Your task to perform on an android device: Check out the best rated books on Goodreads. Image 0: 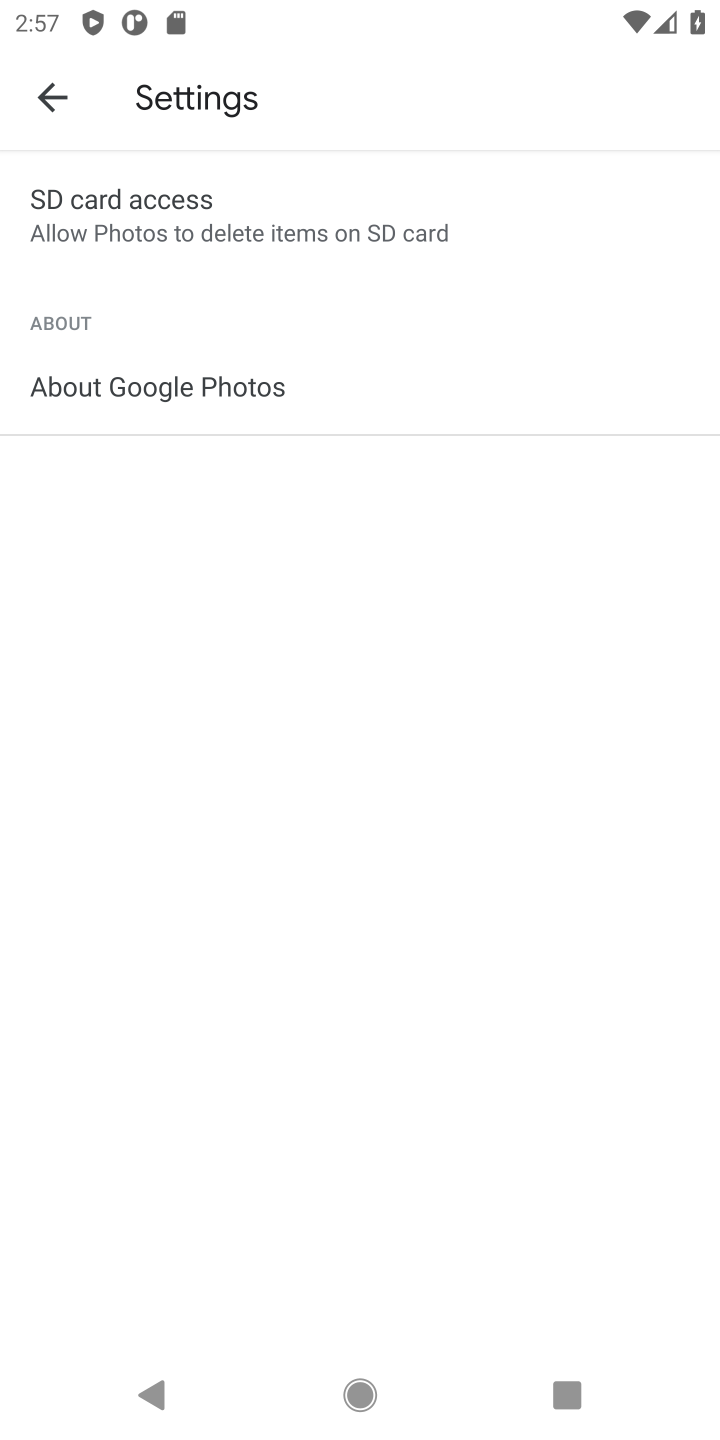
Step 0: press home button
Your task to perform on an android device: Check out the best rated books on Goodreads. Image 1: 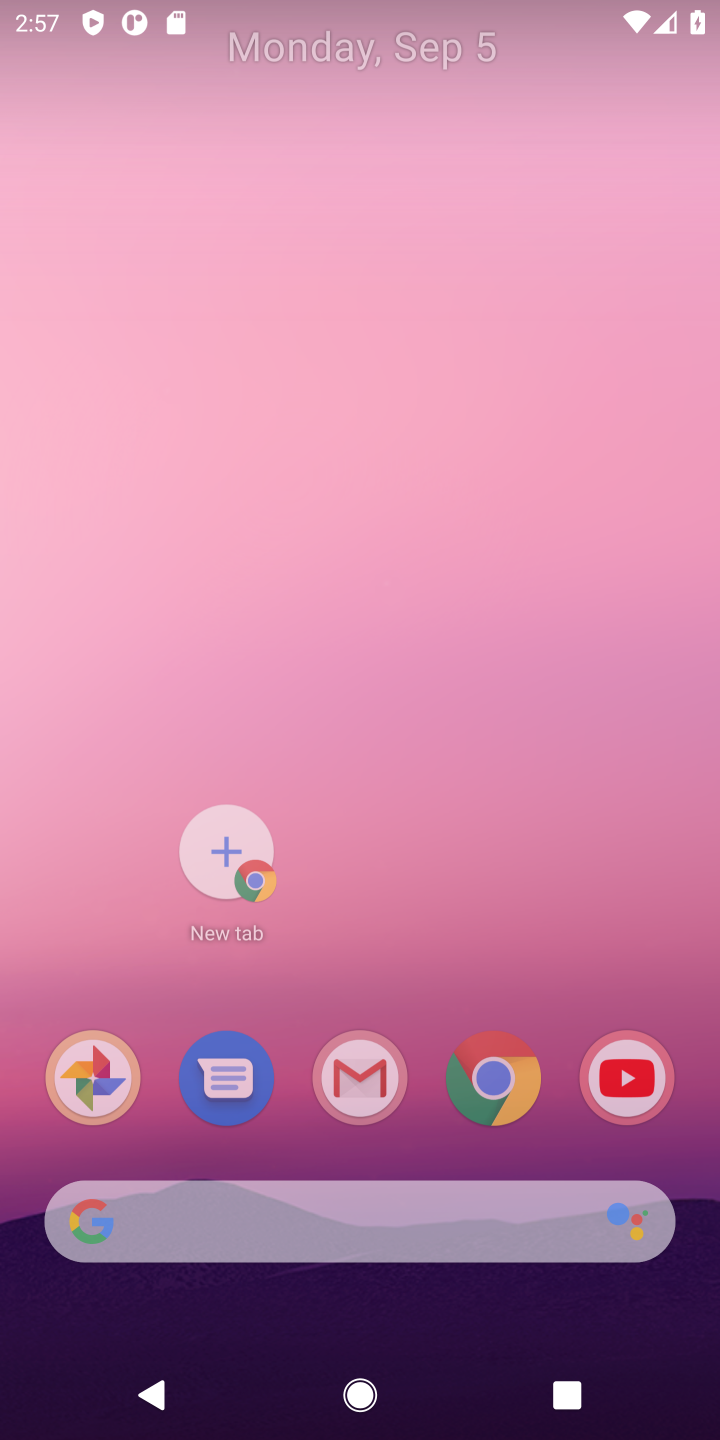
Step 1: press home button
Your task to perform on an android device: Check out the best rated books on Goodreads. Image 2: 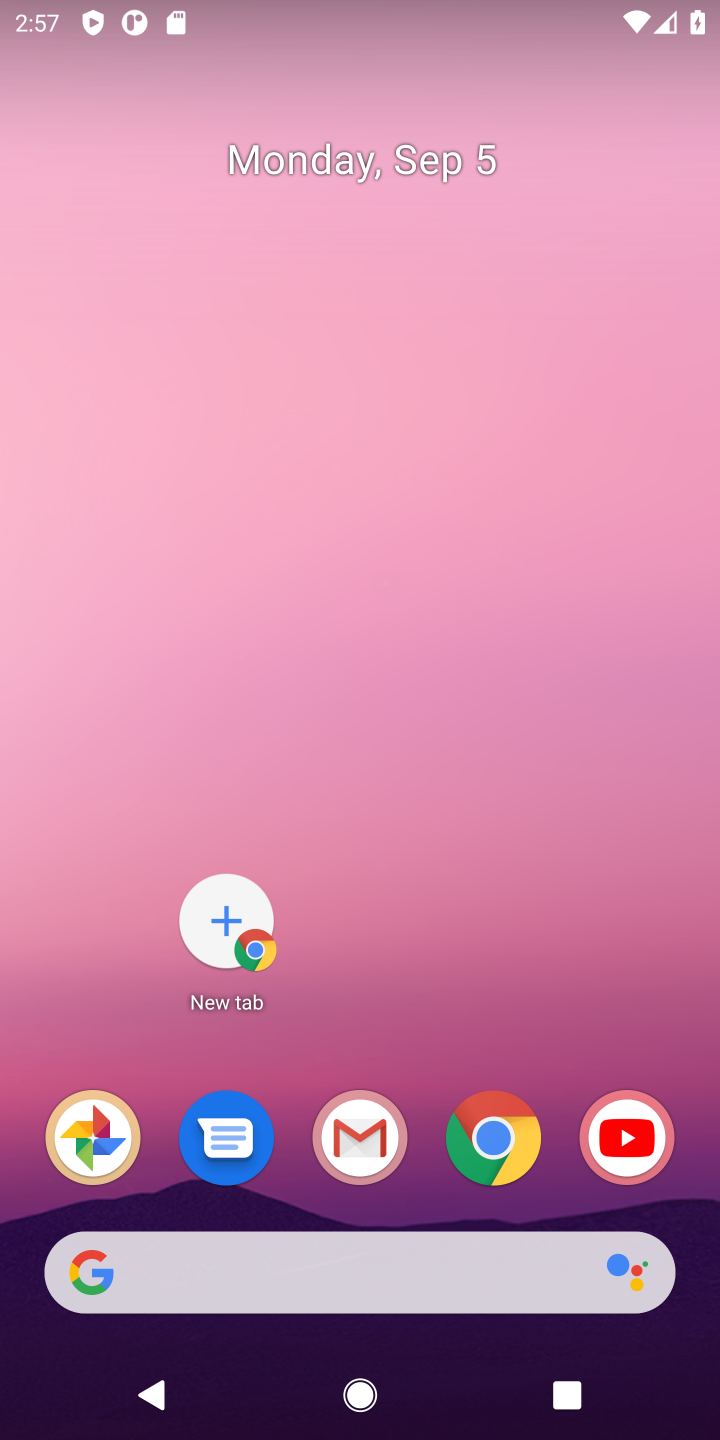
Step 2: click (510, 1155)
Your task to perform on an android device: Check out the best rated books on Goodreads. Image 3: 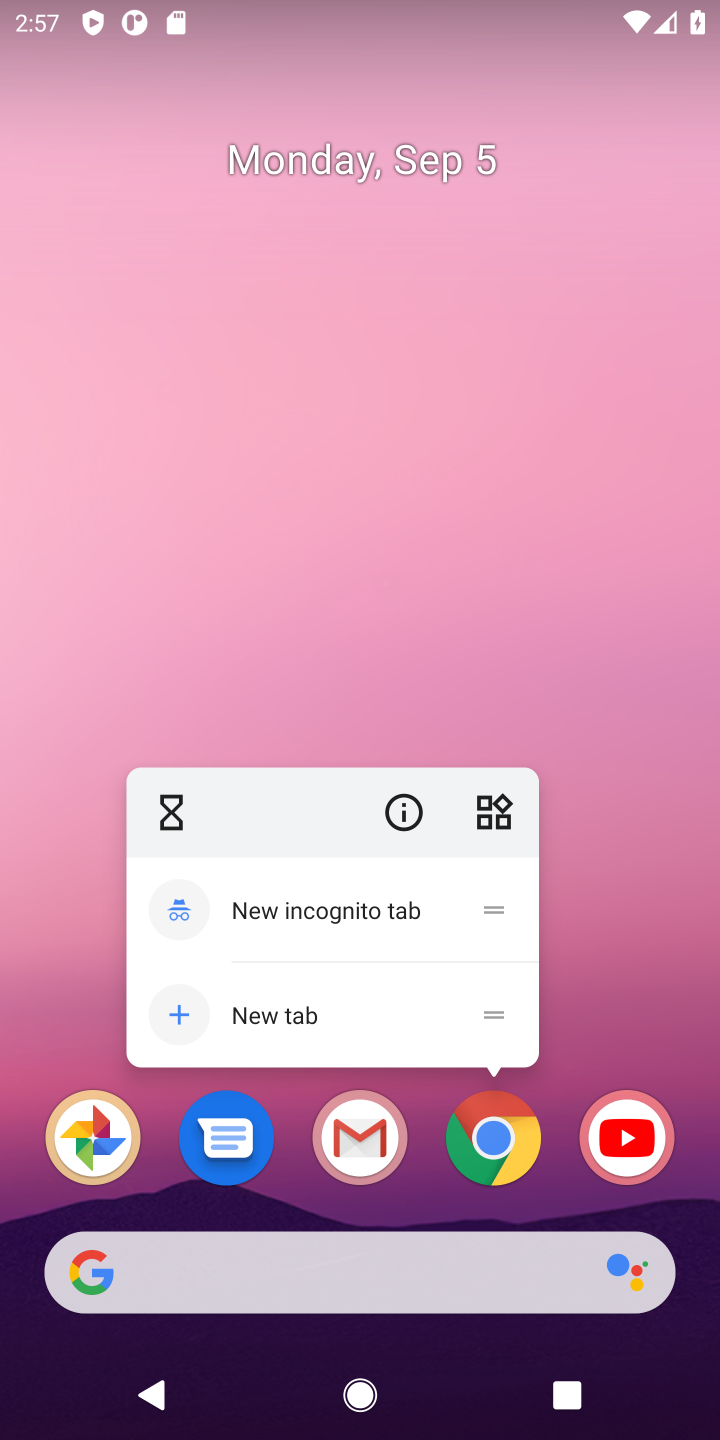
Step 3: click (497, 1148)
Your task to perform on an android device: Check out the best rated books on Goodreads. Image 4: 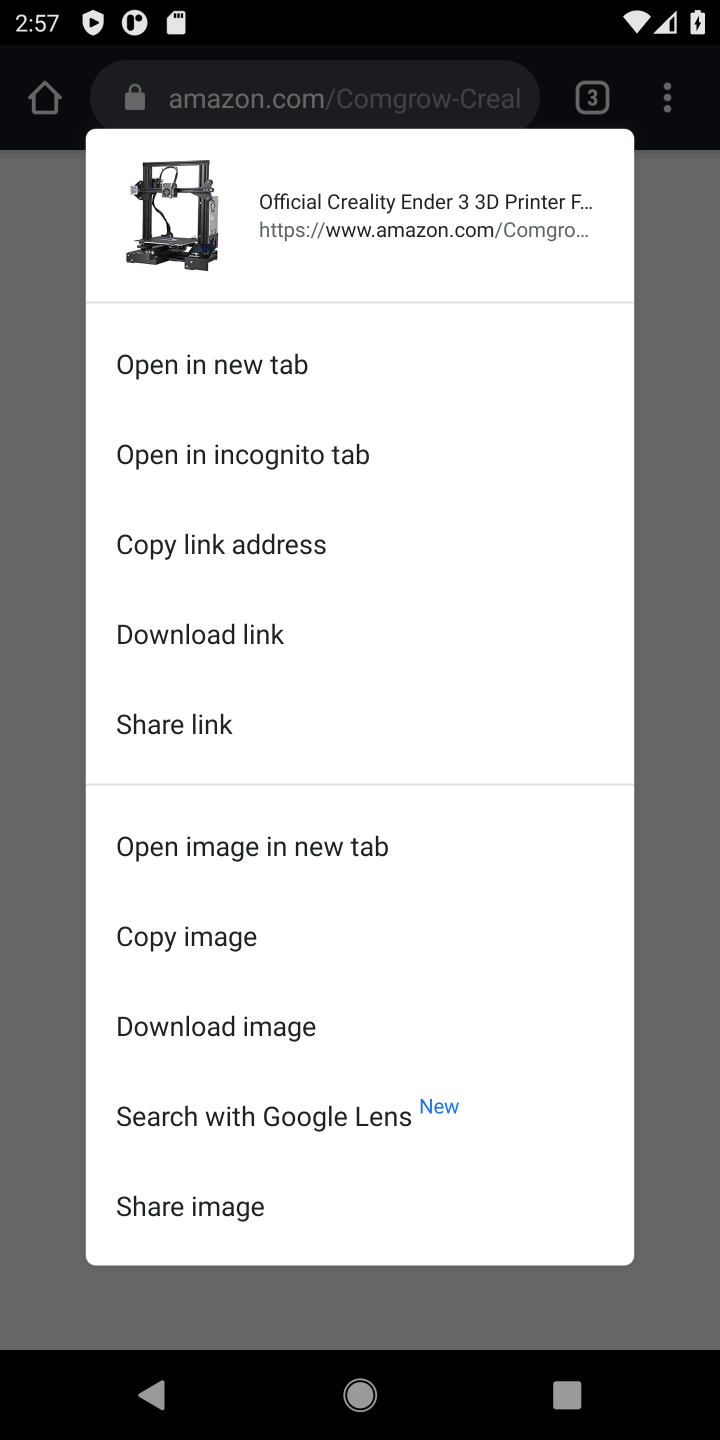
Step 4: click (699, 421)
Your task to perform on an android device: Check out the best rated books on Goodreads. Image 5: 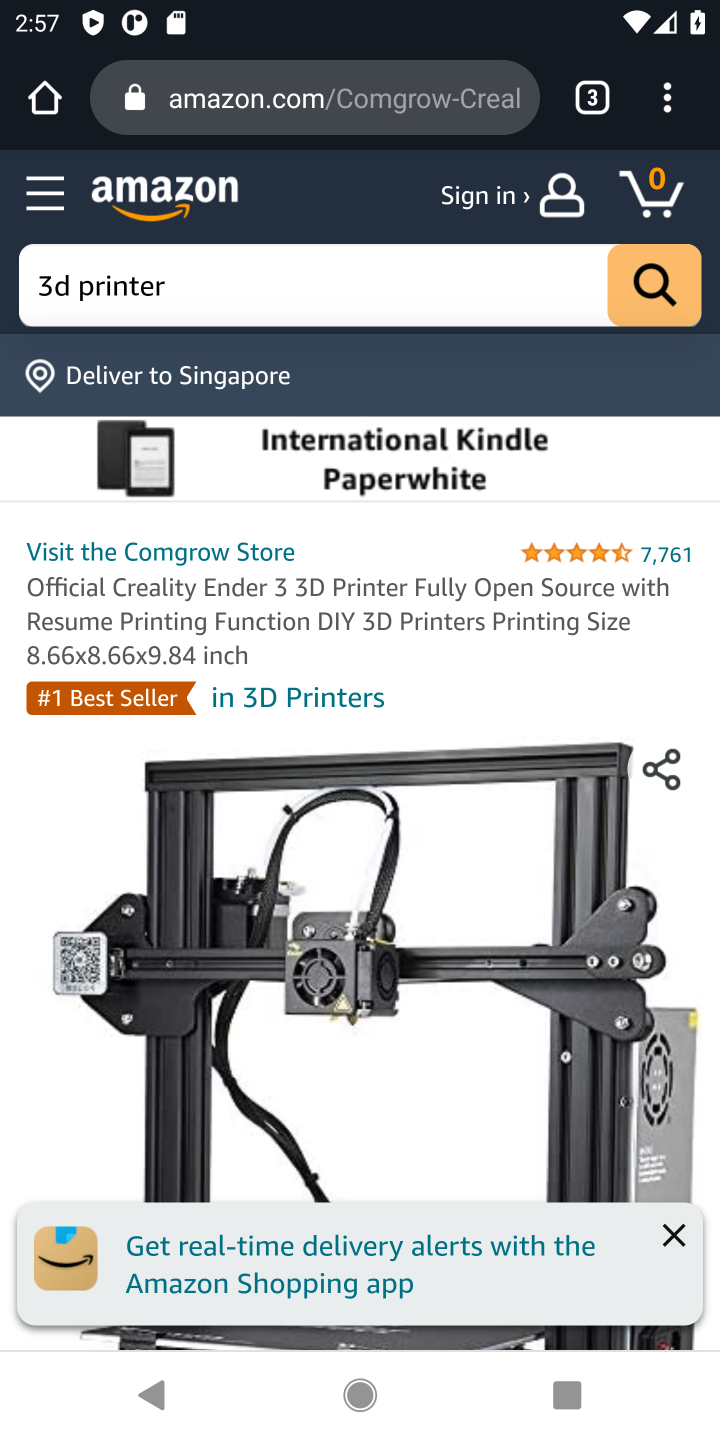
Step 5: click (404, 93)
Your task to perform on an android device: Check out the best rated books on Goodreads. Image 6: 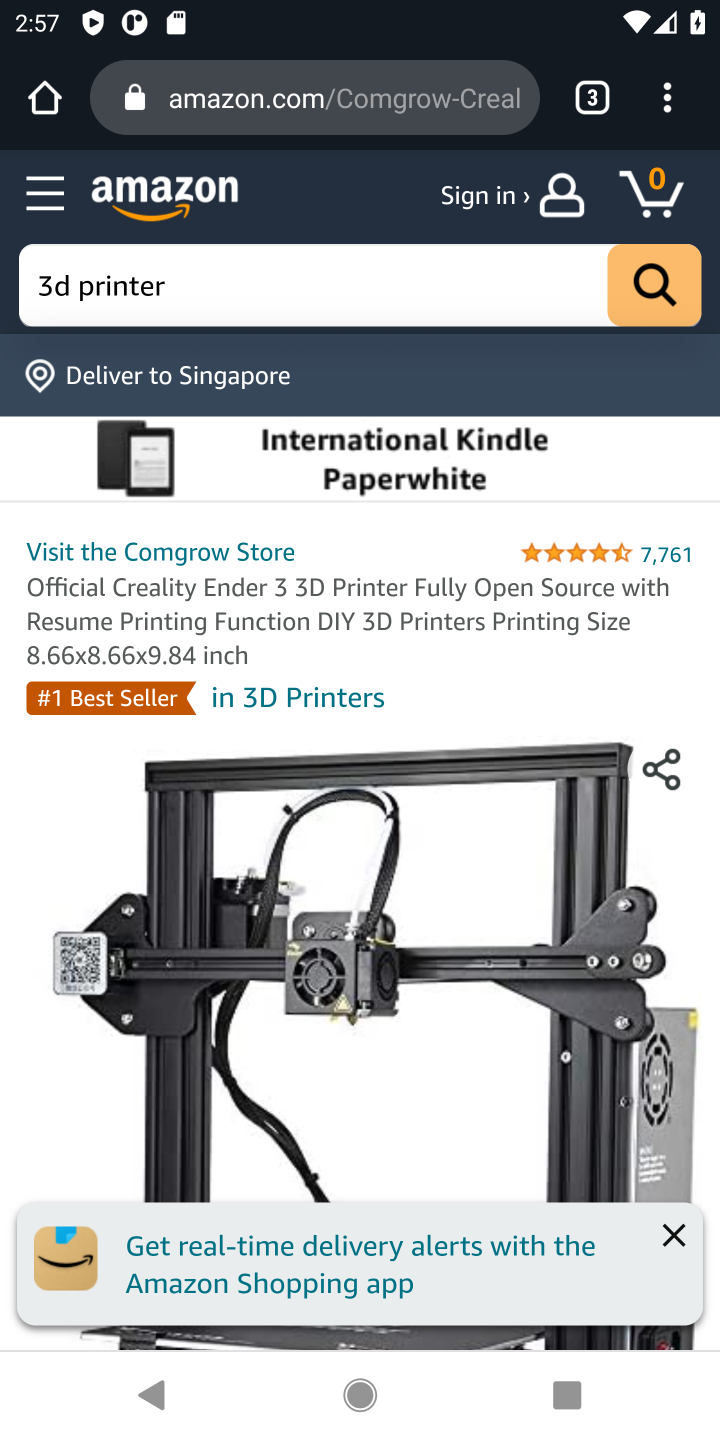
Step 6: click (296, 88)
Your task to perform on an android device: Check out the best rated books on Goodreads. Image 7: 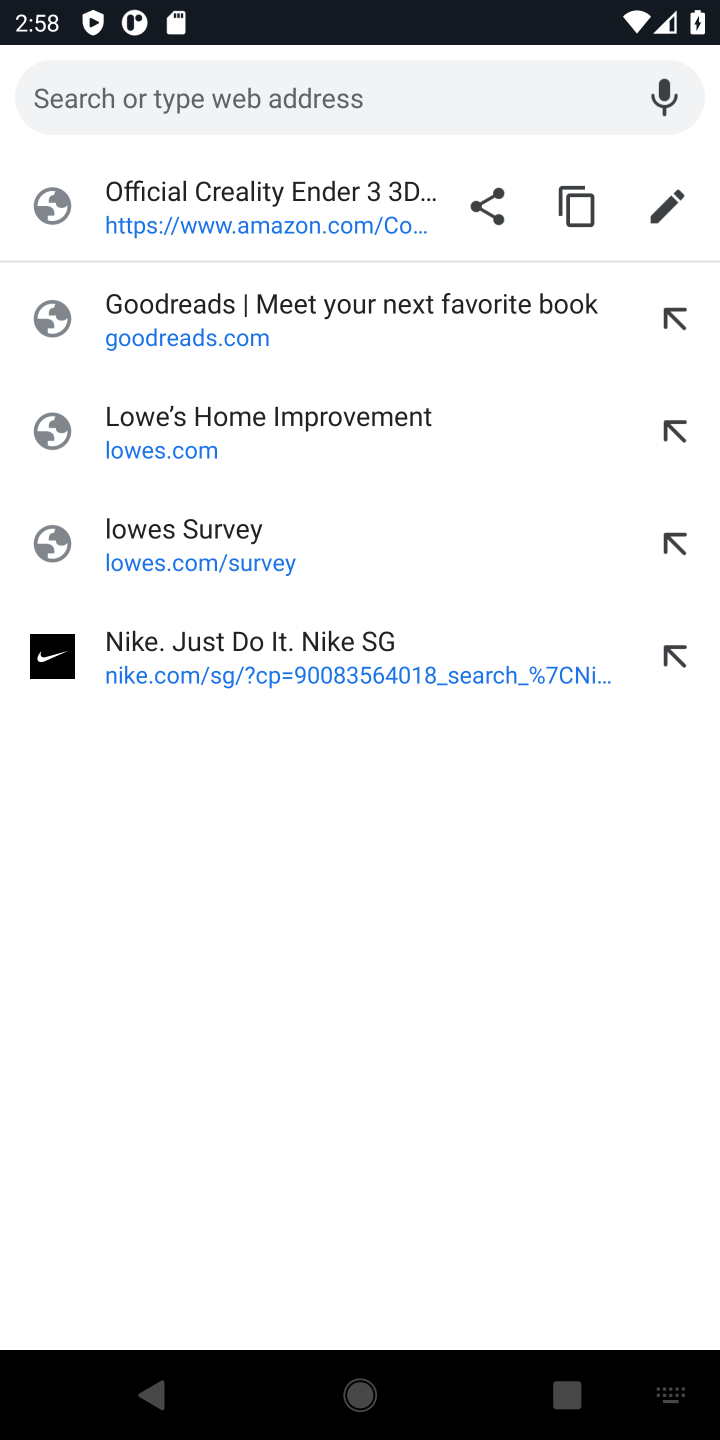
Step 7: type "goodreads"
Your task to perform on an android device: Check out the best rated books on Goodreads. Image 8: 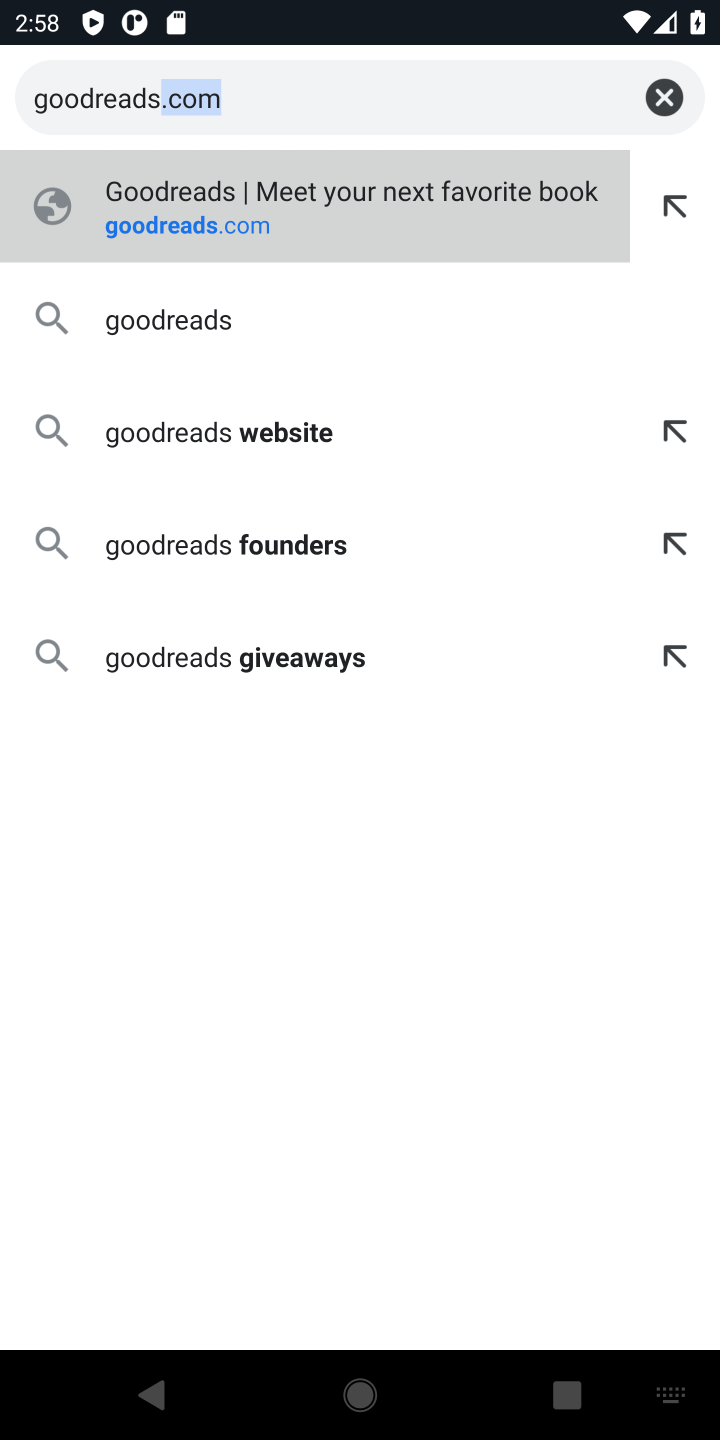
Step 8: click (172, 234)
Your task to perform on an android device: Check out the best rated books on Goodreads. Image 9: 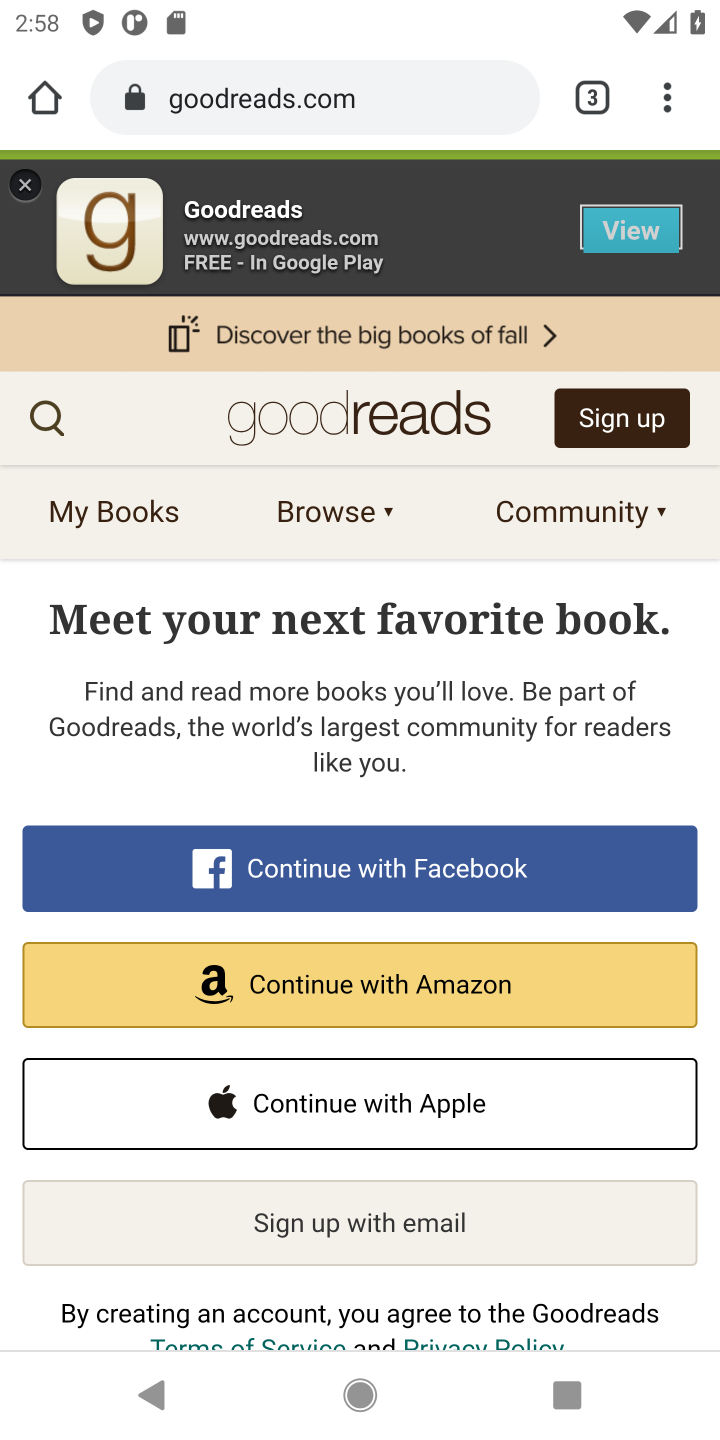
Step 9: click (59, 424)
Your task to perform on an android device: Check out the best rated books on Goodreads. Image 10: 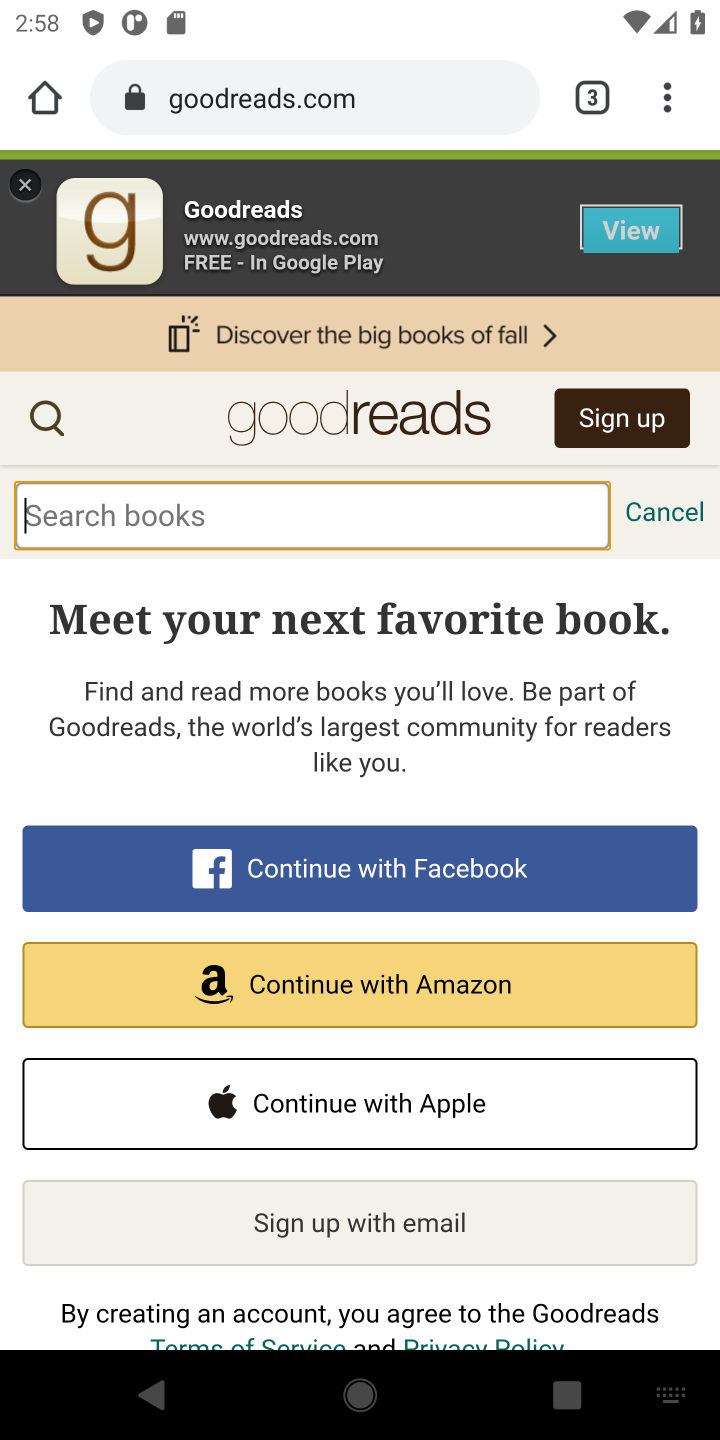
Step 10: type "rated books"
Your task to perform on an android device: Check out the best rated books on Goodreads. Image 11: 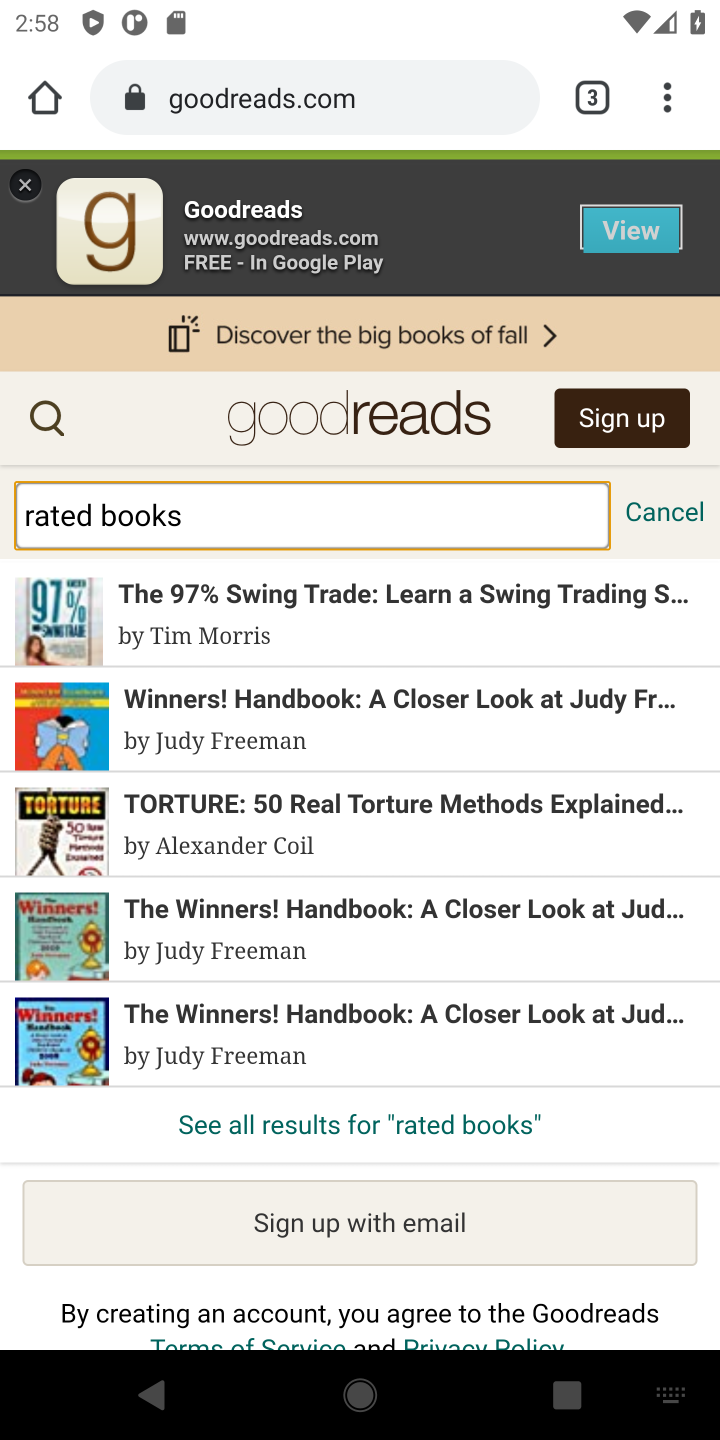
Step 11: drag from (633, 792) to (644, 672)
Your task to perform on an android device: Check out the best rated books on Goodreads. Image 12: 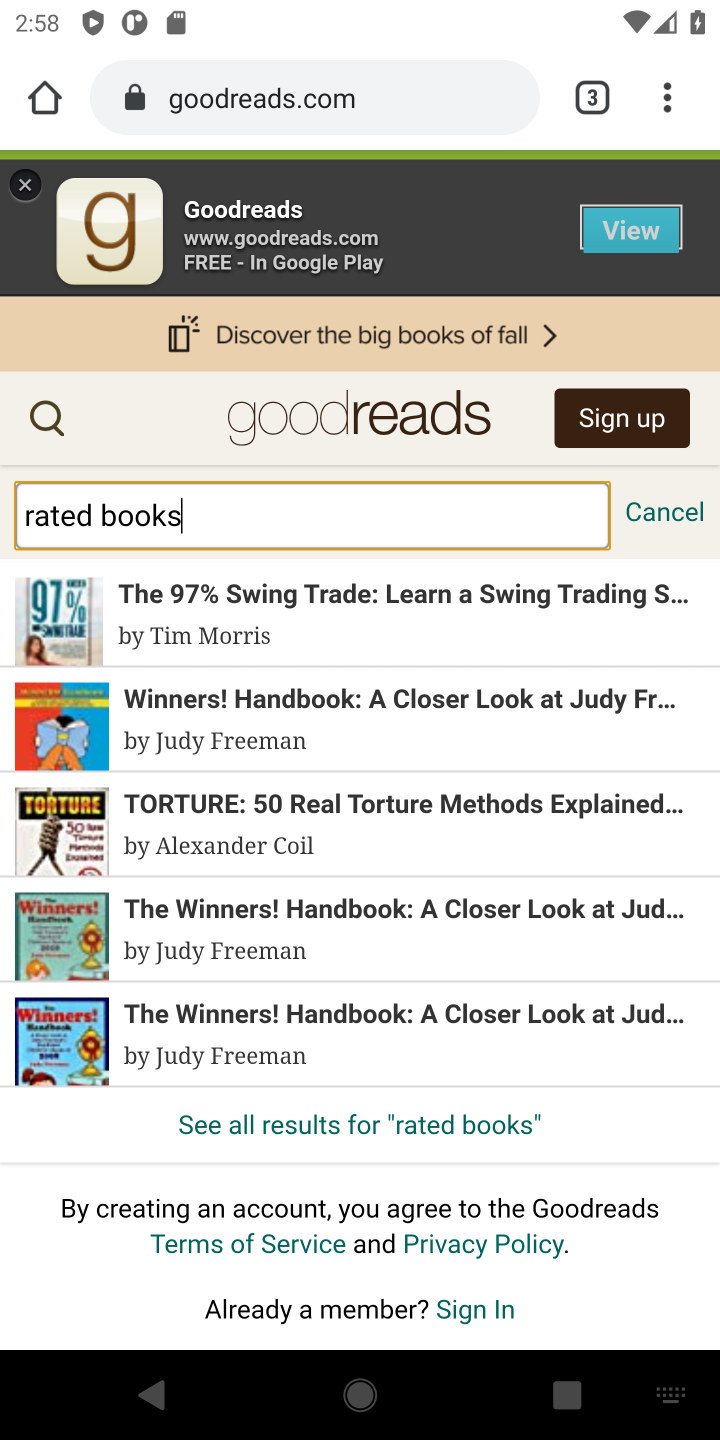
Step 12: drag from (415, 841) to (407, 914)
Your task to perform on an android device: Check out the best rated books on Goodreads. Image 13: 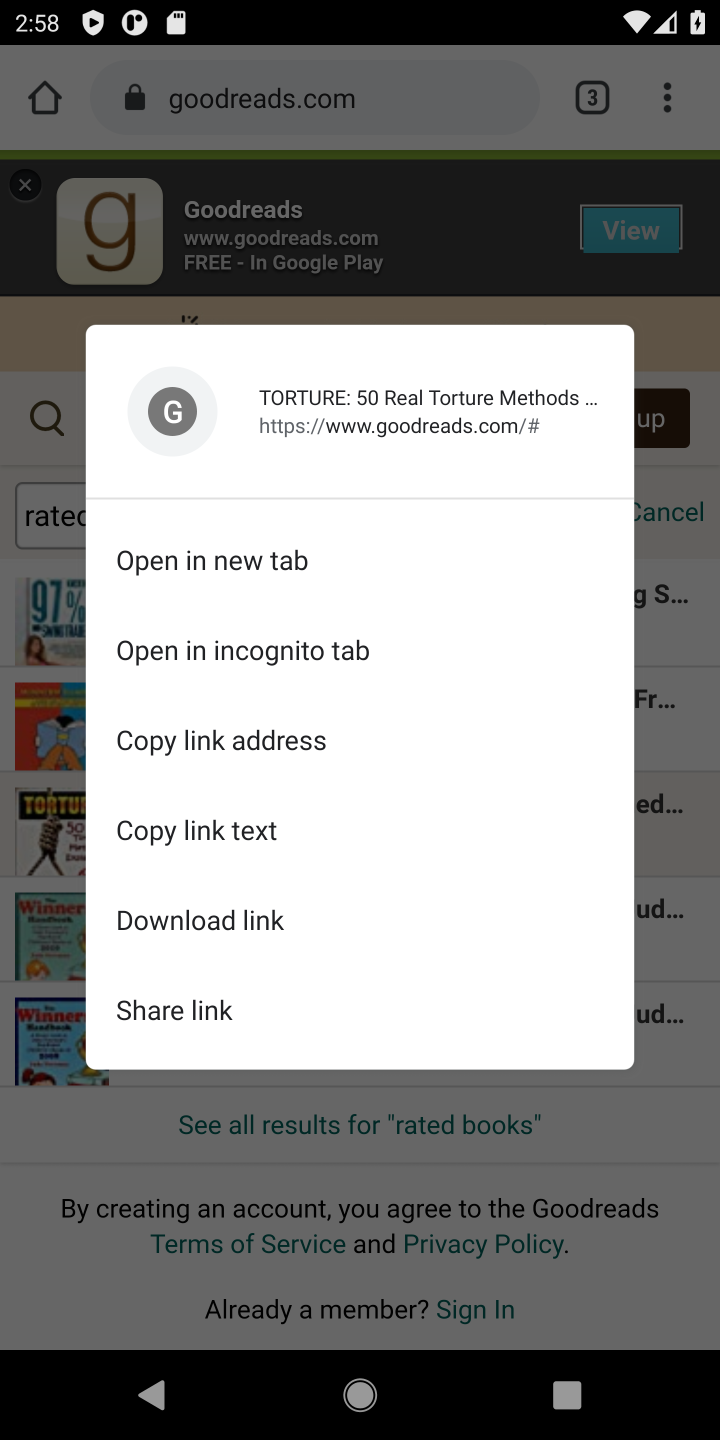
Step 13: click (699, 706)
Your task to perform on an android device: Check out the best rated books on Goodreads. Image 14: 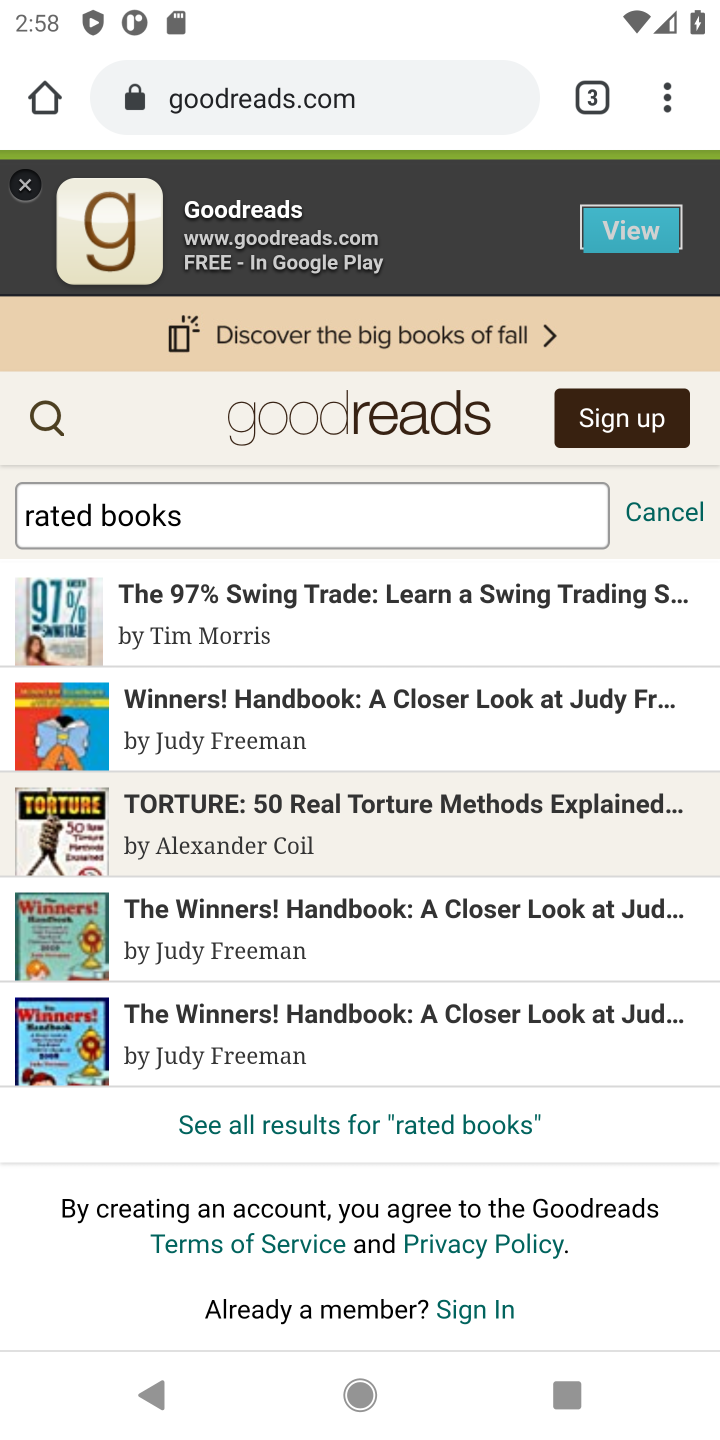
Step 14: click (25, 504)
Your task to perform on an android device: Check out the best rated books on Goodreads. Image 15: 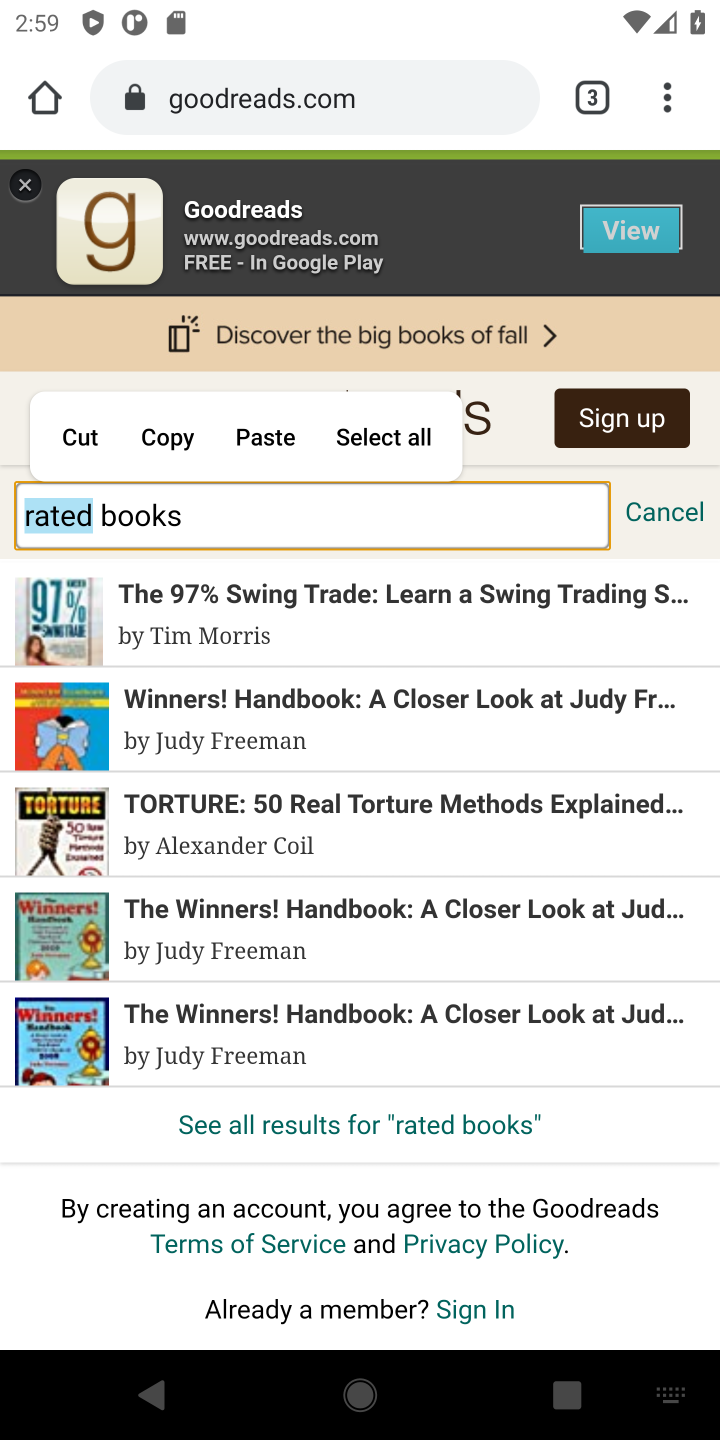
Step 15: click (21, 515)
Your task to perform on an android device: Check out the best rated books on Goodreads. Image 16: 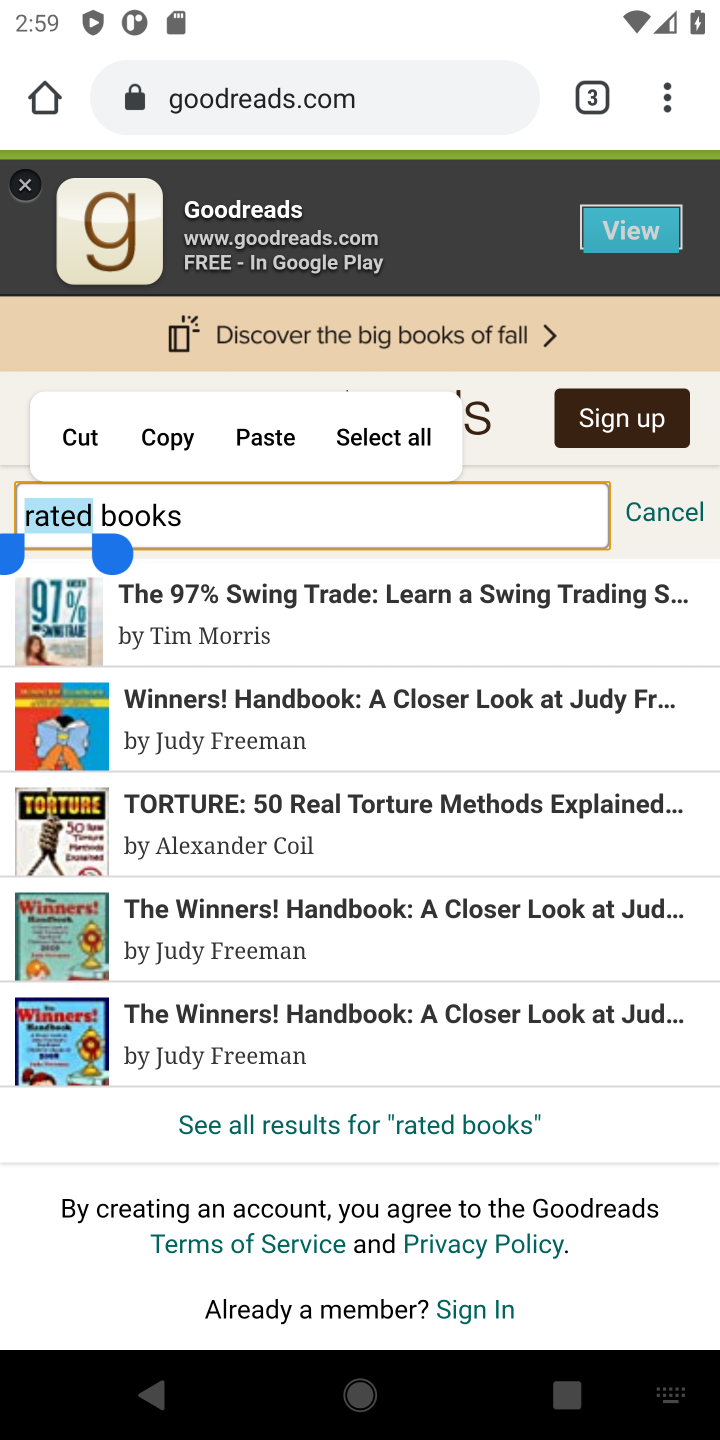
Step 16: click (214, 511)
Your task to perform on an android device: Check out the best rated books on Goodreads. Image 17: 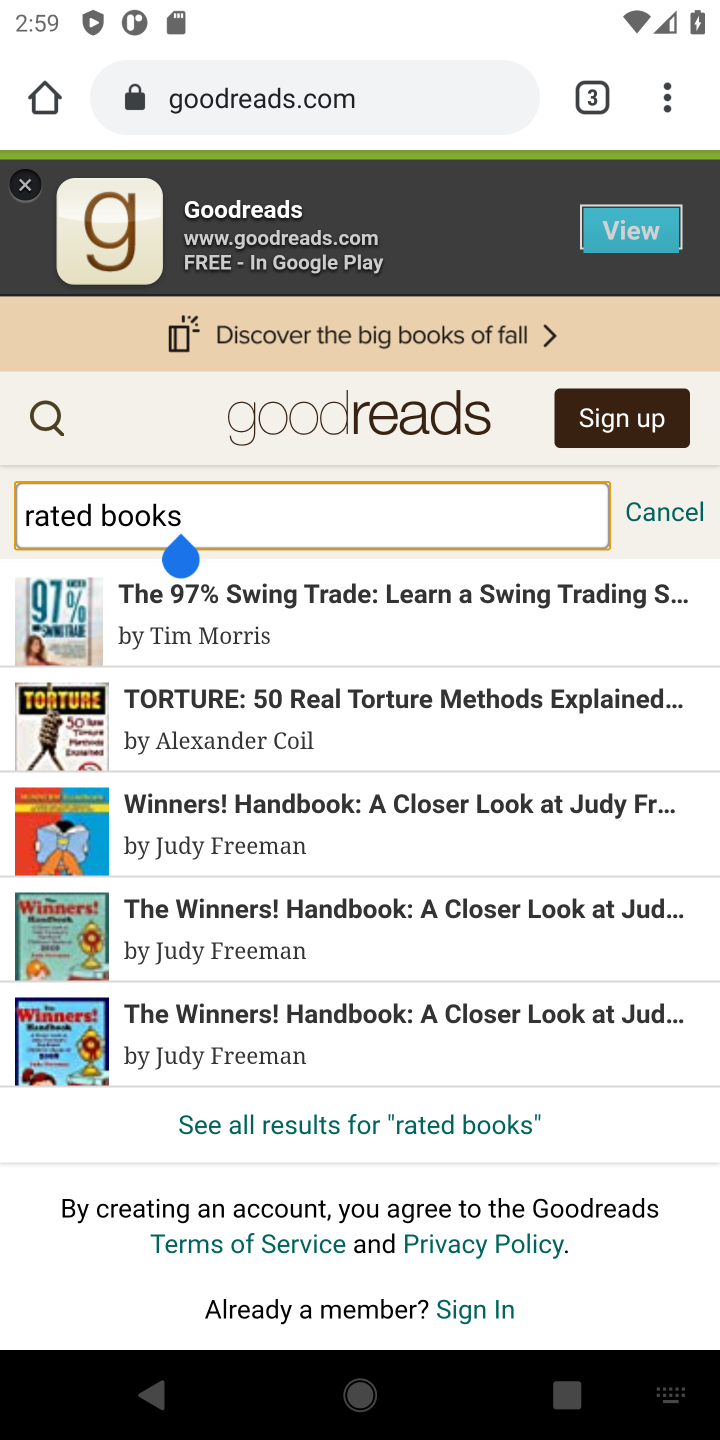
Step 17: task complete